Your task to perform on an android device: What's the weather going to be tomorrow? Image 0: 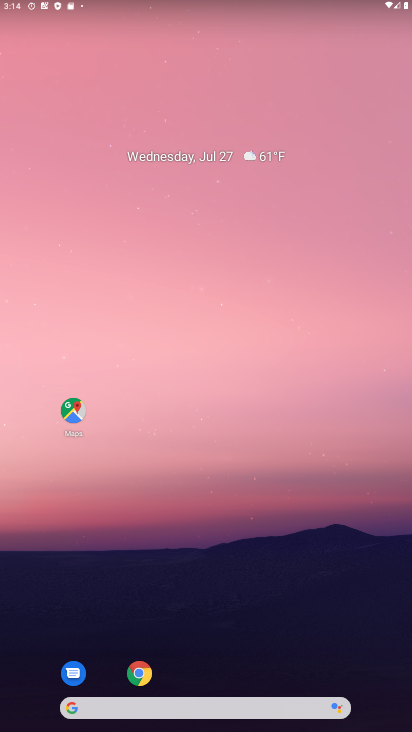
Step 0: click (135, 715)
Your task to perform on an android device: What's the weather going to be tomorrow? Image 1: 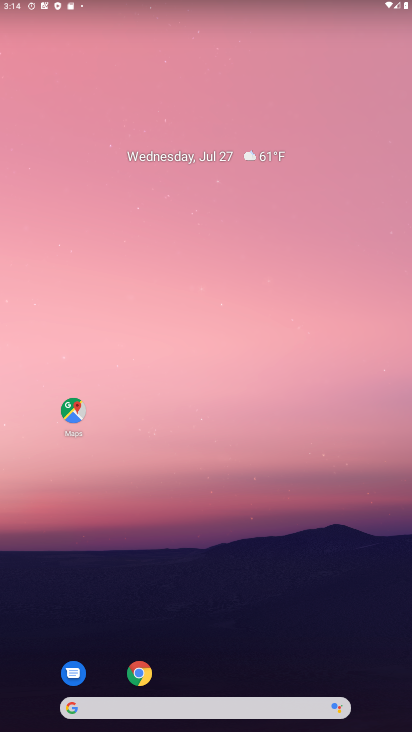
Step 1: click (106, 706)
Your task to perform on an android device: What's the weather going to be tomorrow? Image 2: 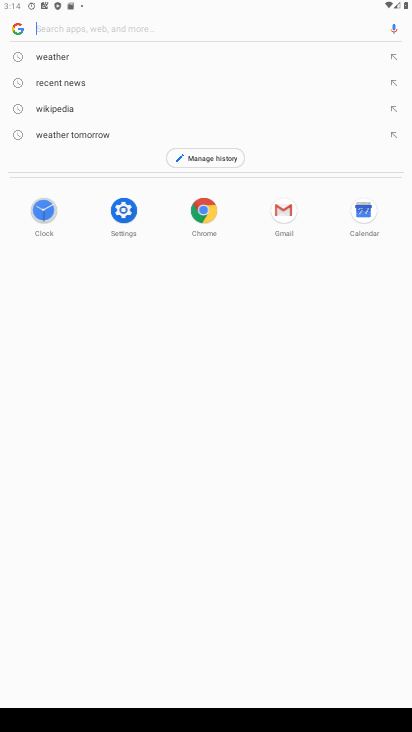
Step 2: type "What's the weather going to be tomorrow?"
Your task to perform on an android device: What's the weather going to be tomorrow? Image 3: 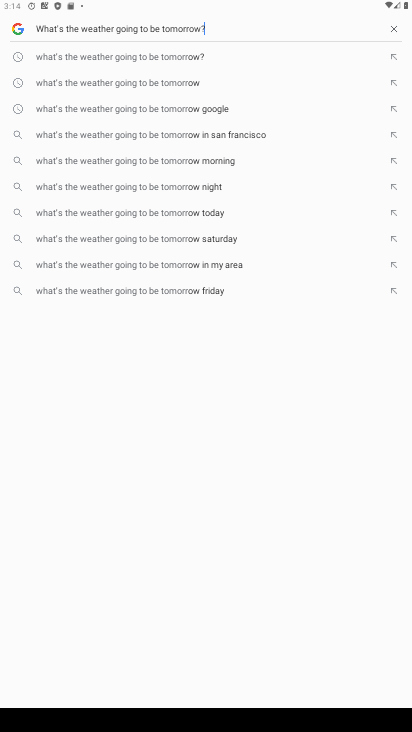
Step 3: type ""
Your task to perform on an android device: What's the weather going to be tomorrow? Image 4: 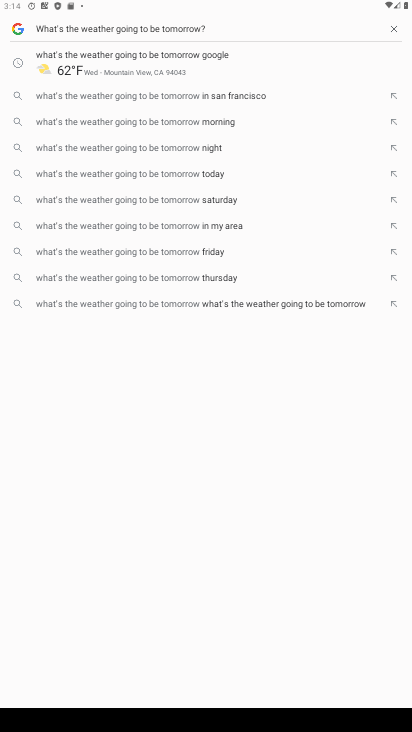
Step 4: task complete